Your task to perform on an android device: open chrome privacy settings Image 0: 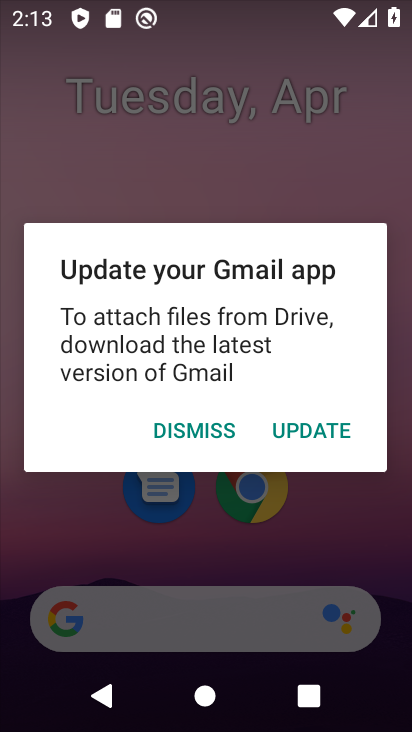
Step 0: press home button
Your task to perform on an android device: open chrome privacy settings Image 1: 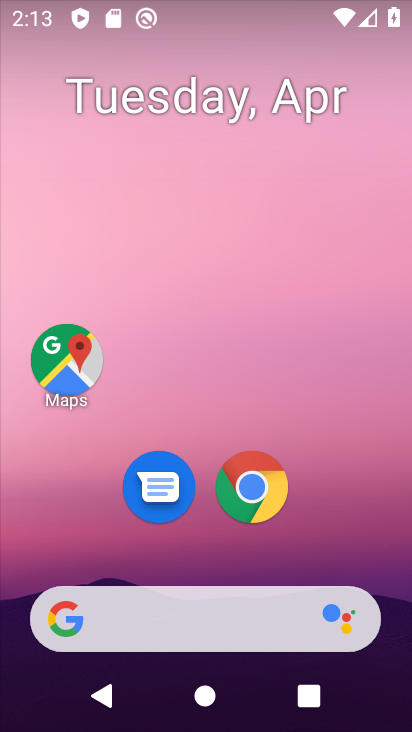
Step 1: drag from (318, 502) to (344, 155)
Your task to perform on an android device: open chrome privacy settings Image 2: 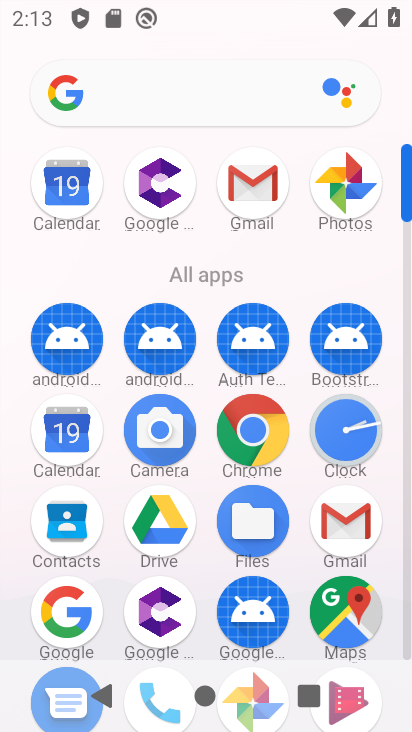
Step 2: click (252, 460)
Your task to perform on an android device: open chrome privacy settings Image 3: 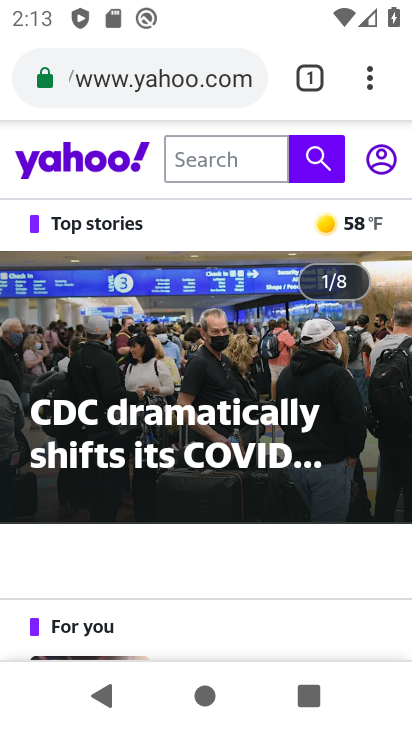
Step 3: click (369, 77)
Your task to perform on an android device: open chrome privacy settings Image 4: 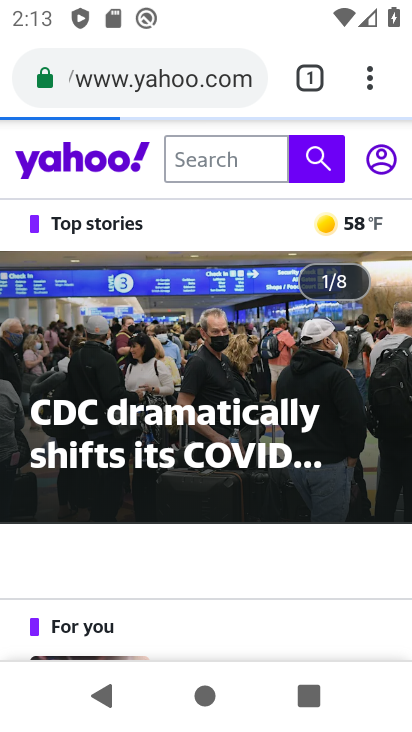
Step 4: drag from (367, 76) to (135, 541)
Your task to perform on an android device: open chrome privacy settings Image 5: 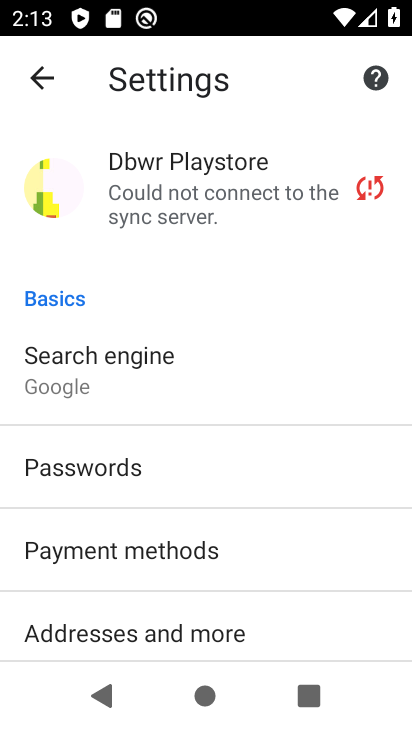
Step 5: drag from (192, 583) to (205, 198)
Your task to perform on an android device: open chrome privacy settings Image 6: 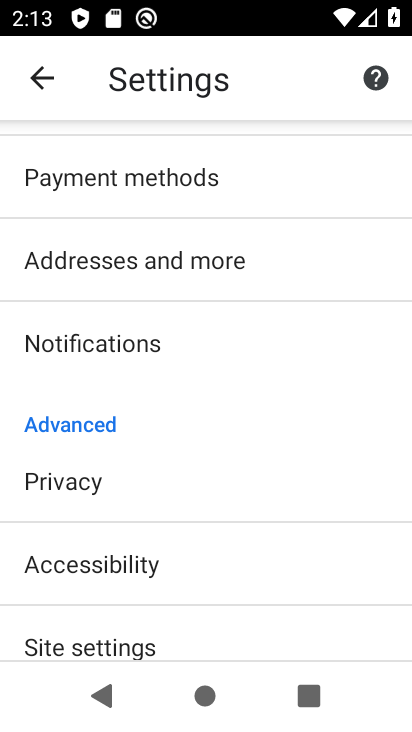
Step 6: click (89, 483)
Your task to perform on an android device: open chrome privacy settings Image 7: 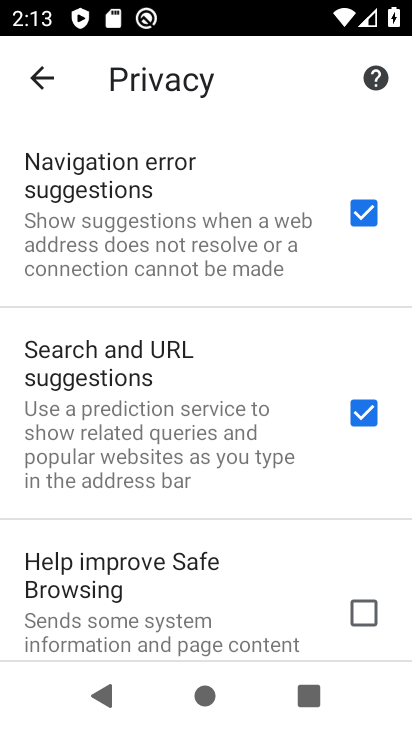
Step 7: task complete